Your task to perform on an android device: check google app version Image 0: 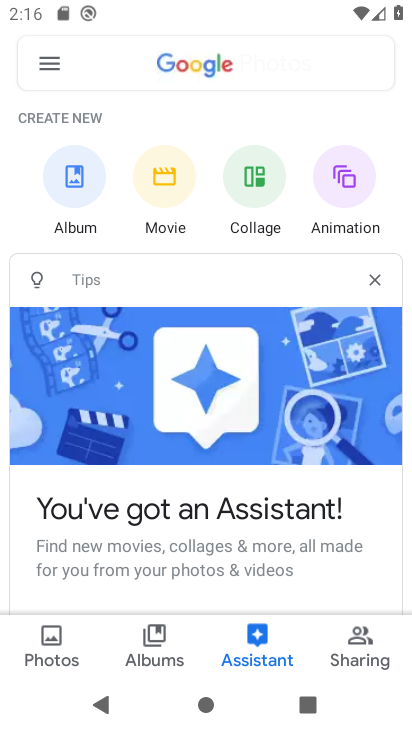
Step 0: press home button
Your task to perform on an android device: check google app version Image 1: 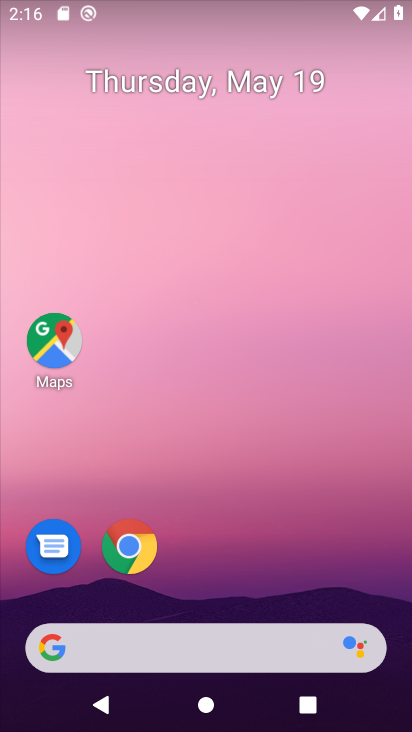
Step 1: drag from (209, 599) to (255, 42)
Your task to perform on an android device: check google app version Image 2: 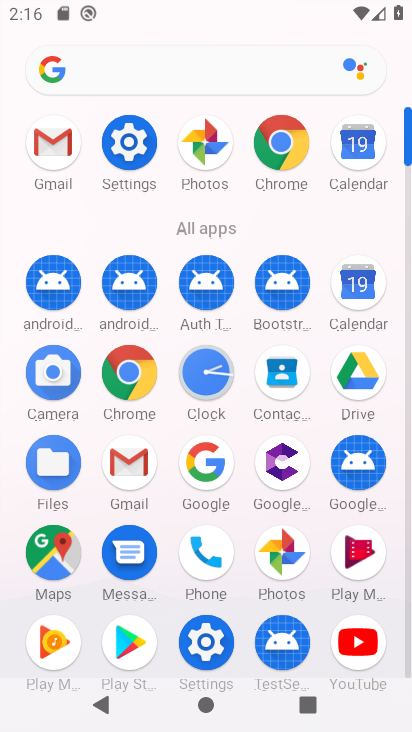
Step 2: click (203, 455)
Your task to perform on an android device: check google app version Image 3: 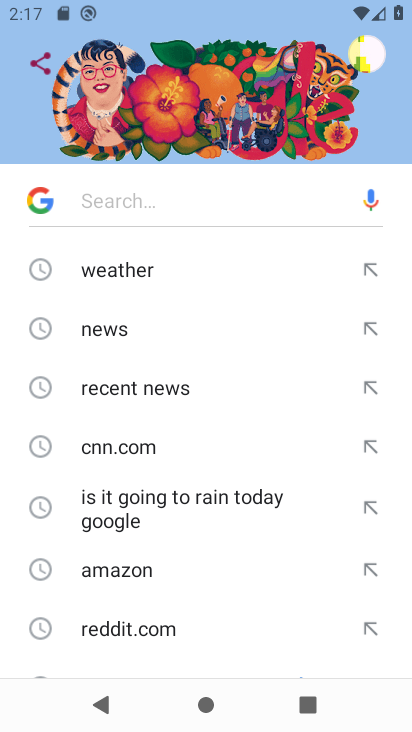
Step 3: drag from (222, 612) to (250, 205)
Your task to perform on an android device: check google app version Image 4: 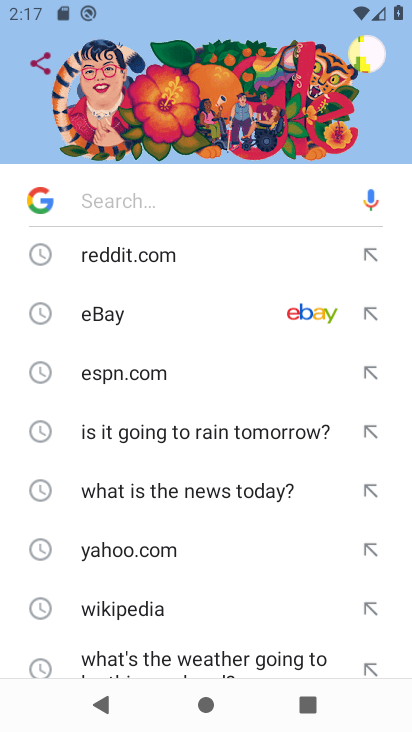
Step 4: press back button
Your task to perform on an android device: check google app version Image 5: 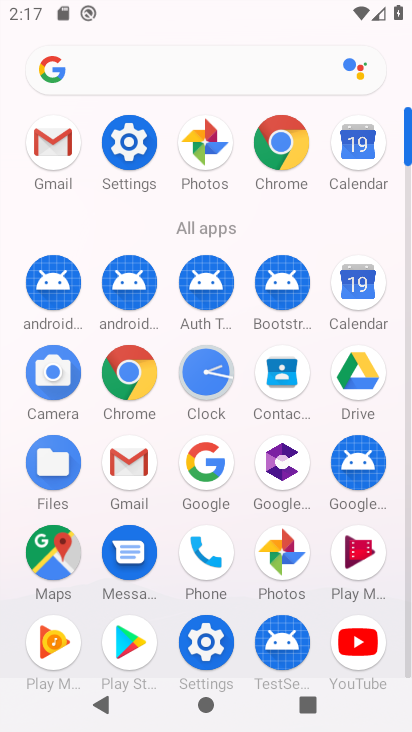
Step 5: click (201, 455)
Your task to perform on an android device: check google app version Image 6: 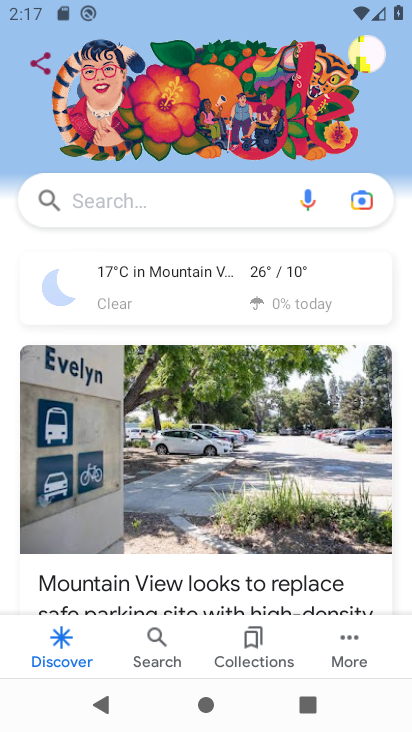
Step 6: click (347, 637)
Your task to perform on an android device: check google app version Image 7: 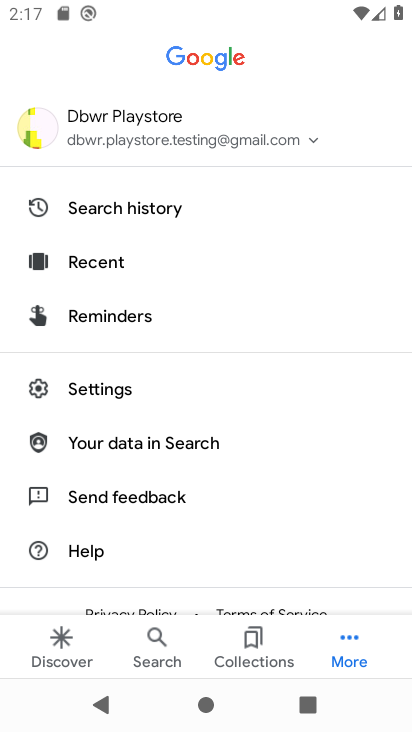
Step 7: click (138, 383)
Your task to perform on an android device: check google app version Image 8: 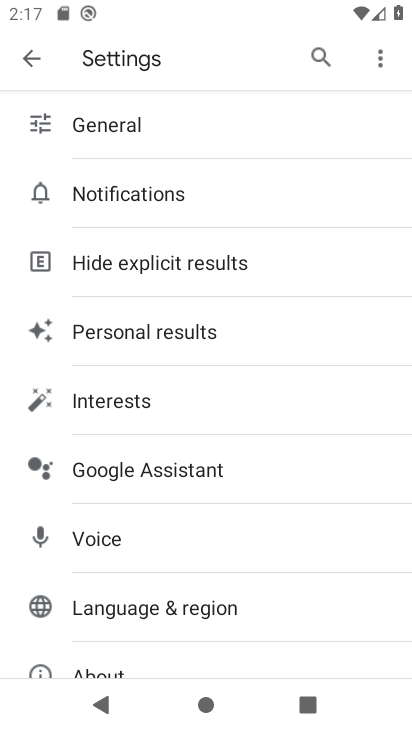
Step 8: drag from (171, 620) to (186, 177)
Your task to perform on an android device: check google app version Image 9: 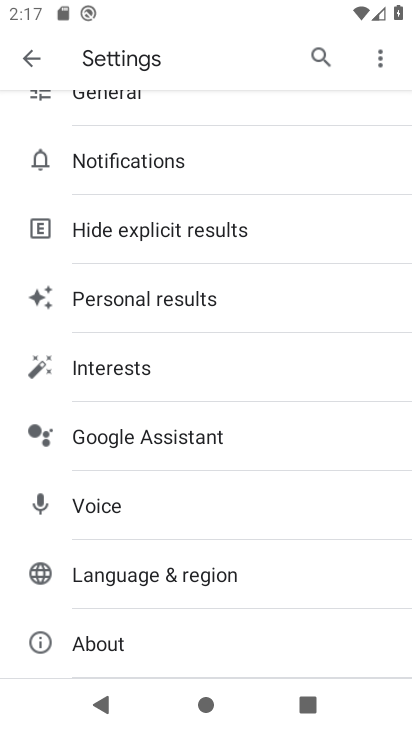
Step 9: click (138, 635)
Your task to perform on an android device: check google app version Image 10: 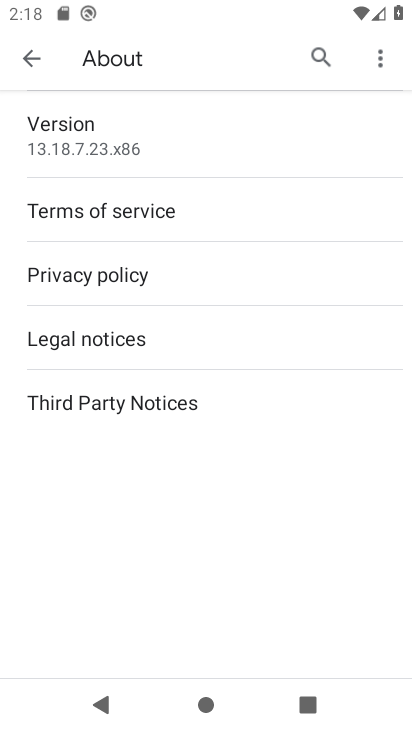
Step 10: task complete